Your task to perform on an android device: install app "Google Sheets" Image 0: 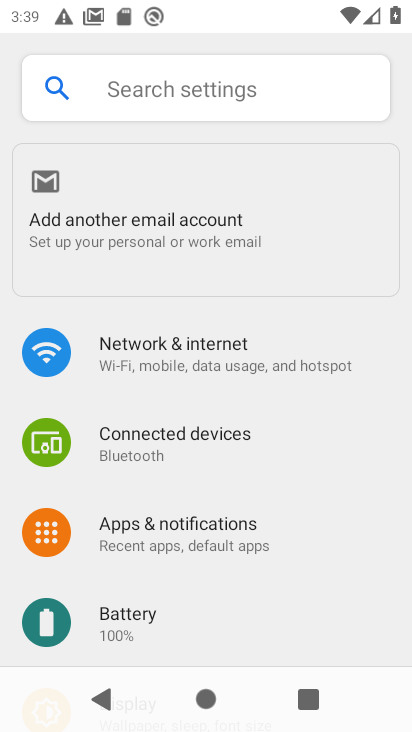
Step 0: press home button
Your task to perform on an android device: install app "Google Sheets" Image 1: 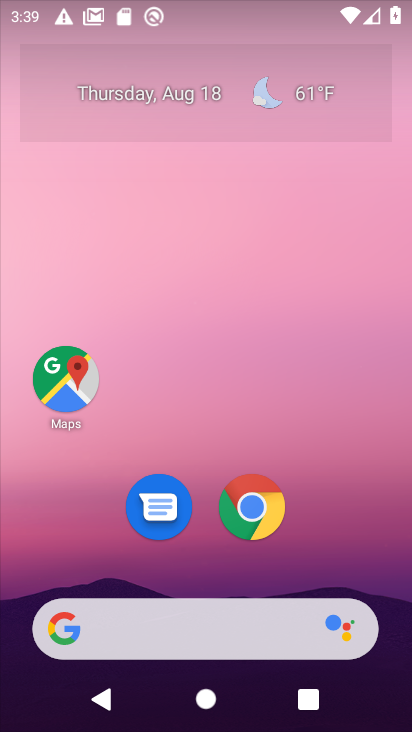
Step 1: drag from (173, 566) to (225, 71)
Your task to perform on an android device: install app "Google Sheets" Image 2: 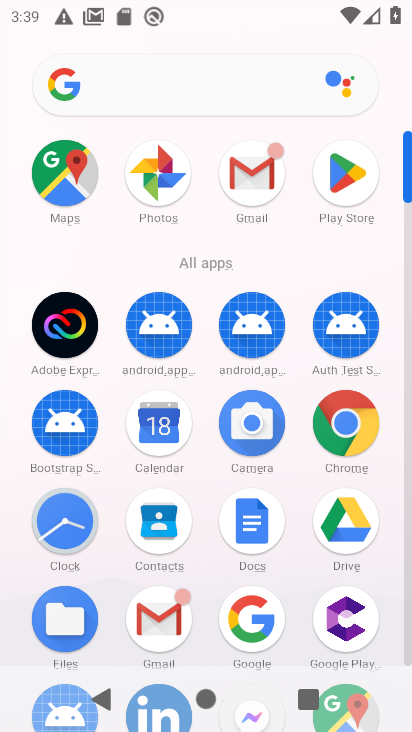
Step 2: click (335, 171)
Your task to perform on an android device: install app "Google Sheets" Image 3: 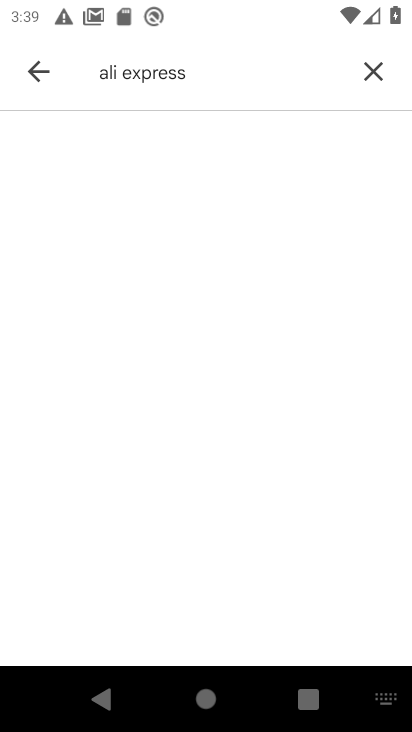
Step 3: click (367, 60)
Your task to perform on an android device: install app "Google Sheets" Image 4: 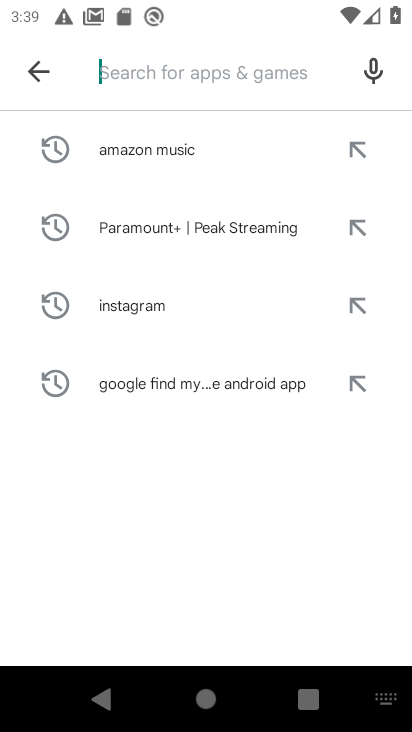
Step 4: click (140, 87)
Your task to perform on an android device: install app "Google Sheets" Image 5: 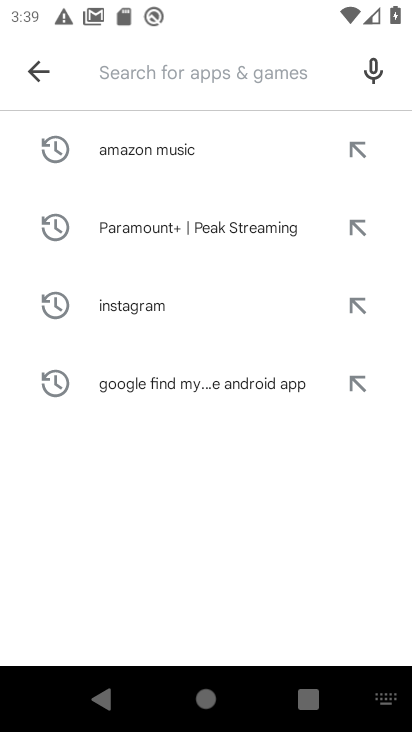
Step 5: type "Google Sheets"
Your task to perform on an android device: install app "Google Sheets" Image 6: 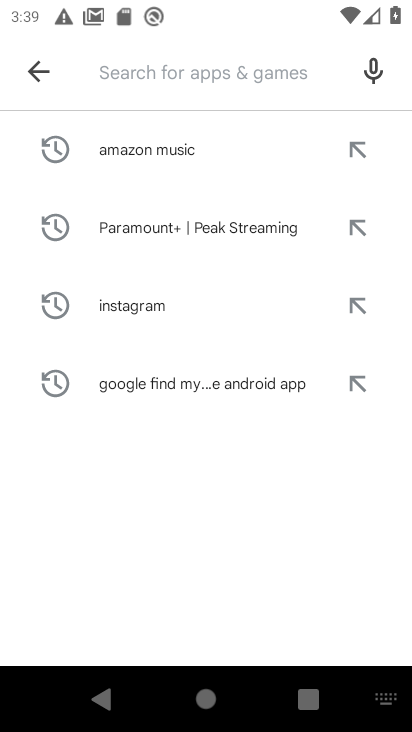
Step 6: click (164, 492)
Your task to perform on an android device: install app "Google Sheets" Image 7: 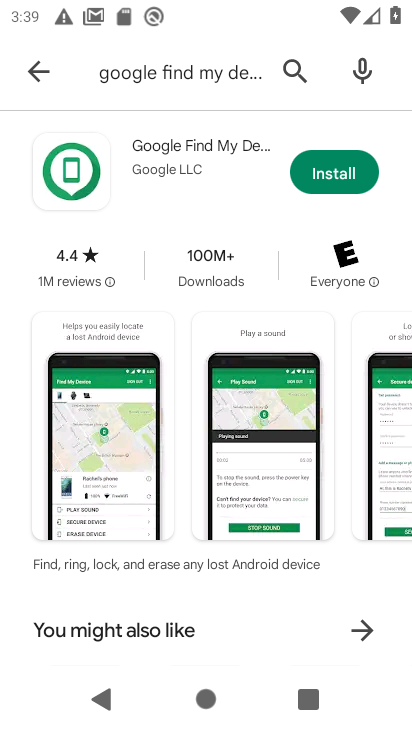
Step 7: click (300, 72)
Your task to perform on an android device: install app "Google Sheets" Image 8: 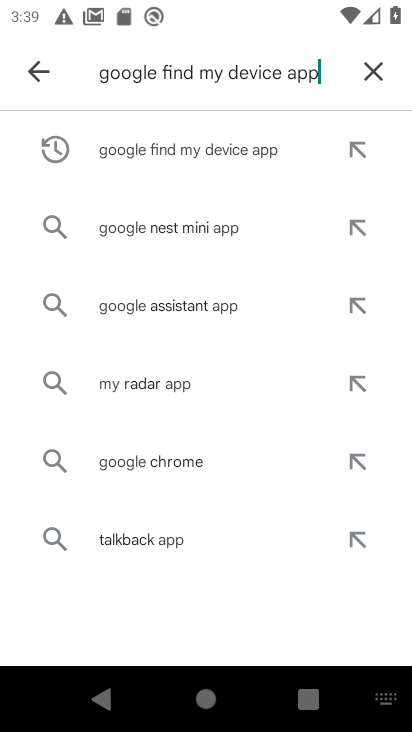
Step 8: click (376, 72)
Your task to perform on an android device: install app "Google Sheets" Image 9: 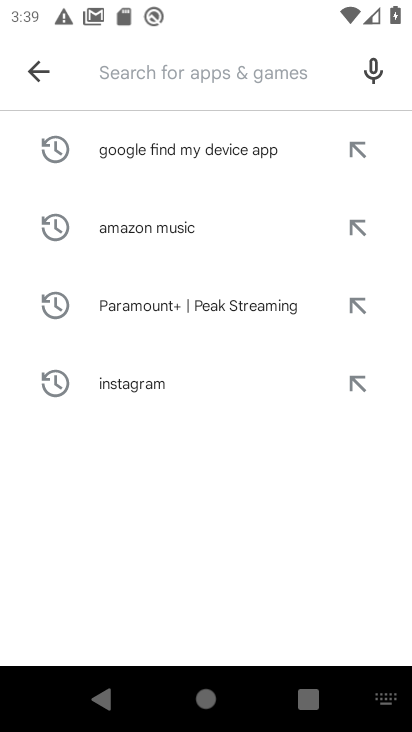
Step 9: click (131, 75)
Your task to perform on an android device: install app "Google Sheets" Image 10: 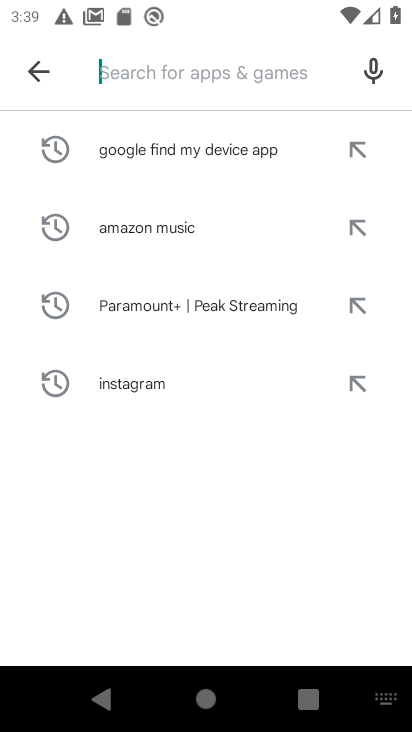
Step 10: type "Google Sheets"
Your task to perform on an android device: install app "Google Sheets" Image 11: 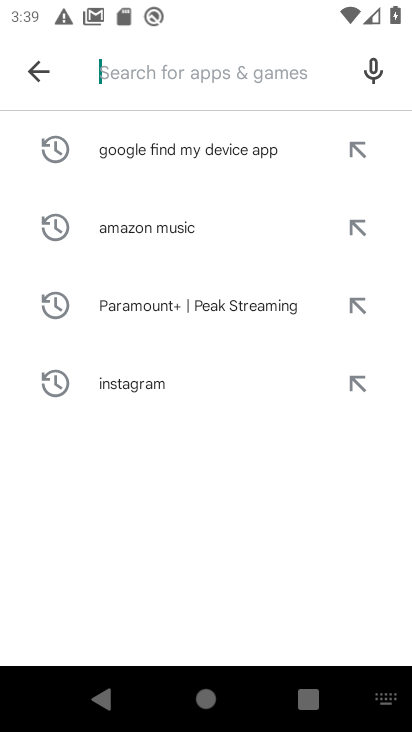
Step 11: click (165, 587)
Your task to perform on an android device: install app "Google Sheets" Image 12: 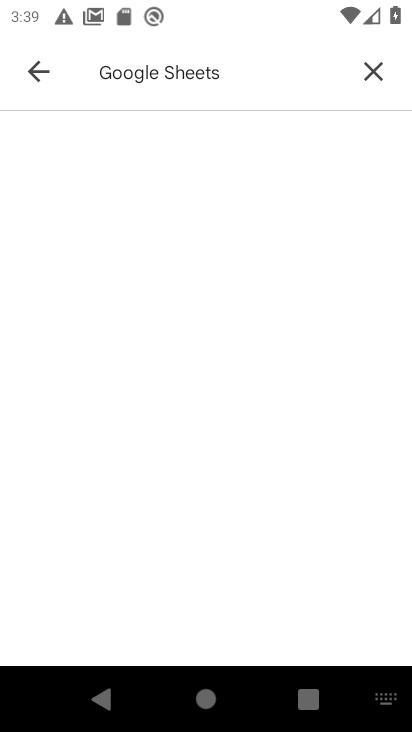
Step 12: task complete